Your task to perform on an android device: Open the calendar app, open the side menu, and click the "Day" option Image 0: 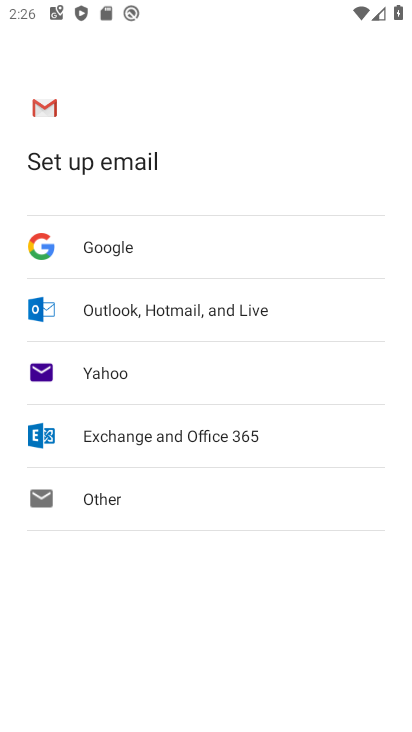
Step 0: press home button
Your task to perform on an android device: Open the calendar app, open the side menu, and click the "Day" option Image 1: 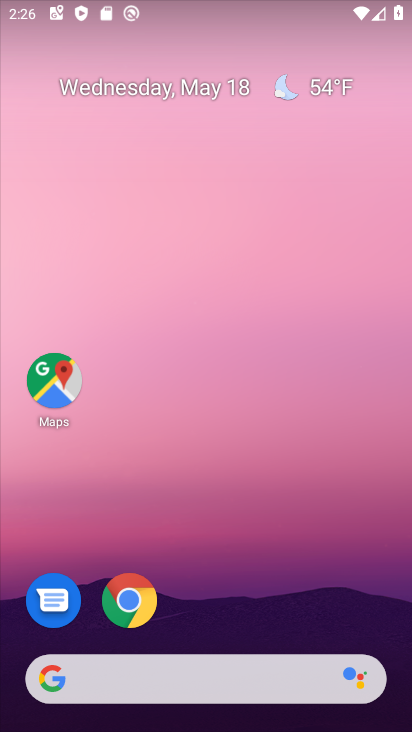
Step 1: click (146, 101)
Your task to perform on an android device: Open the calendar app, open the side menu, and click the "Day" option Image 2: 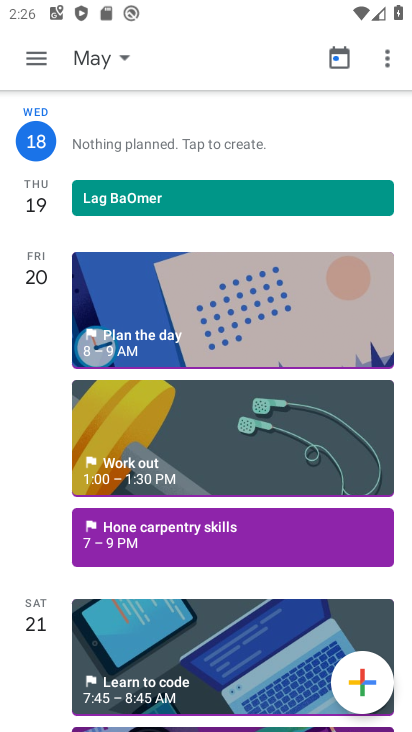
Step 2: click (29, 51)
Your task to perform on an android device: Open the calendar app, open the side menu, and click the "Day" option Image 3: 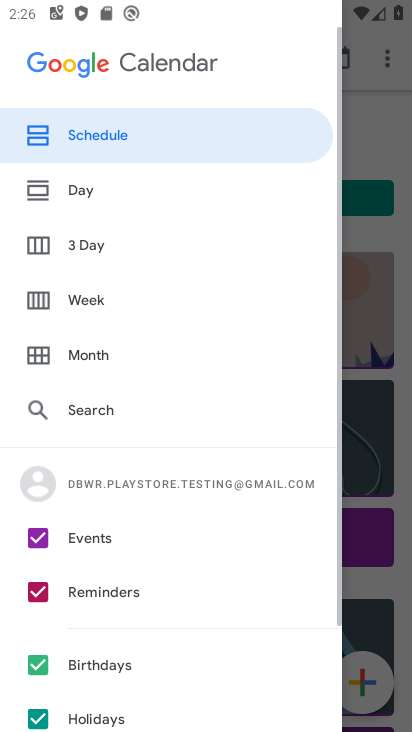
Step 3: click (102, 174)
Your task to perform on an android device: Open the calendar app, open the side menu, and click the "Day" option Image 4: 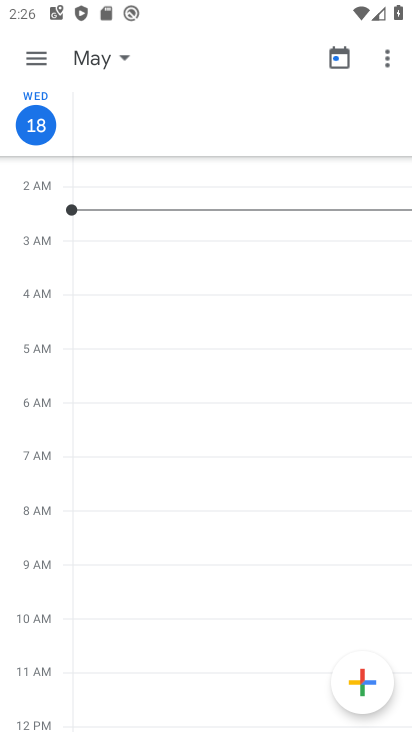
Step 4: task complete